Your task to perform on an android device: change the clock display to digital Image 0: 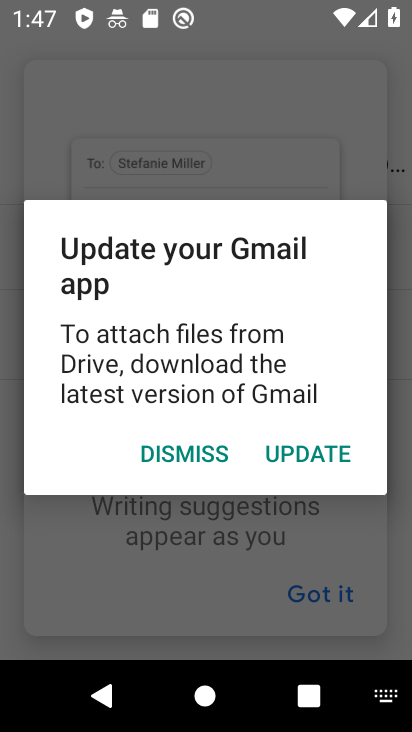
Step 0: press home button
Your task to perform on an android device: change the clock display to digital Image 1: 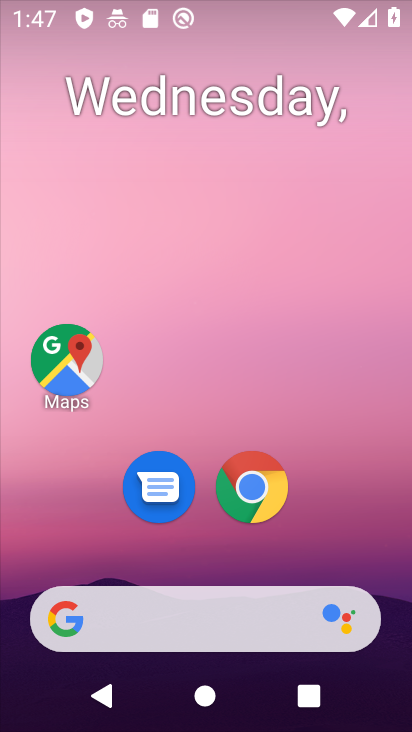
Step 1: drag from (235, 651) to (327, 60)
Your task to perform on an android device: change the clock display to digital Image 2: 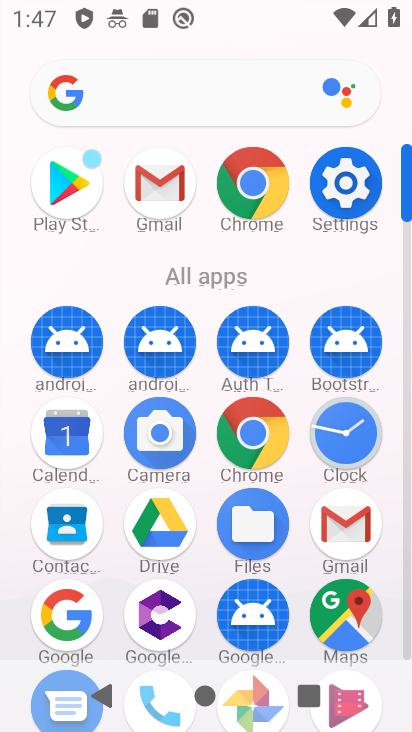
Step 2: click (337, 434)
Your task to perform on an android device: change the clock display to digital Image 3: 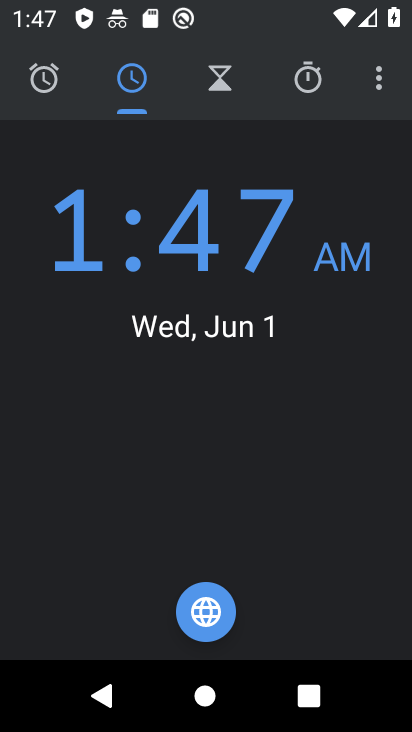
Step 3: click (385, 72)
Your task to perform on an android device: change the clock display to digital Image 4: 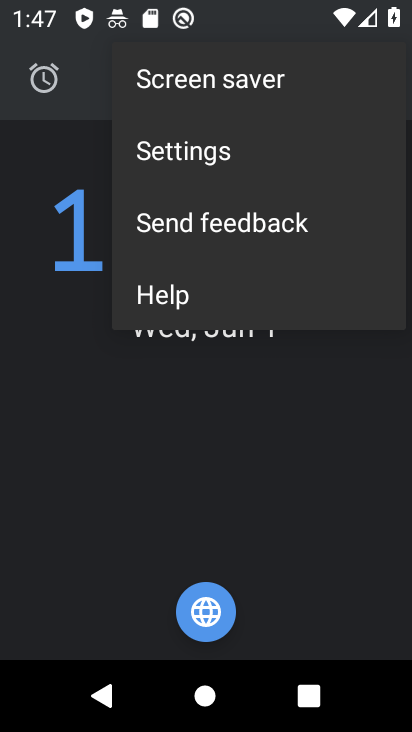
Step 4: click (233, 165)
Your task to perform on an android device: change the clock display to digital Image 5: 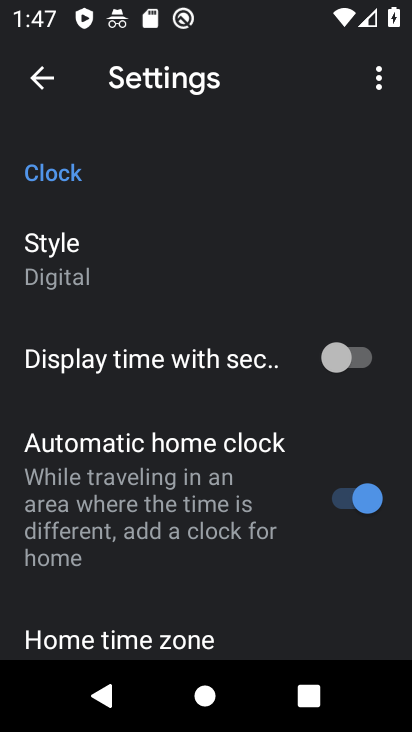
Step 5: task complete